Your task to perform on an android device: turn off picture-in-picture Image 0: 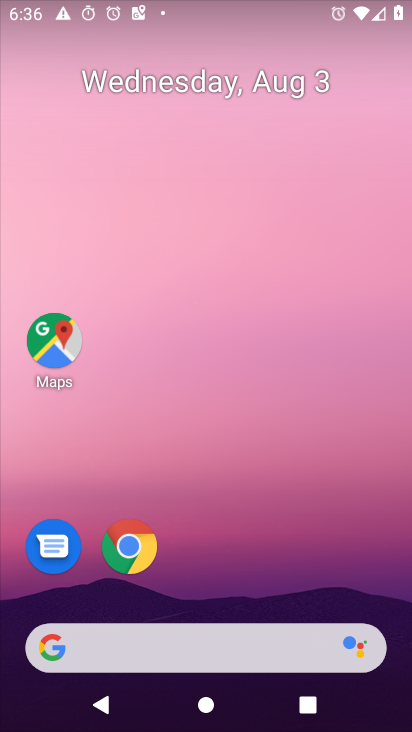
Step 0: press home button
Your task to perform on an android device: turn off picture-in-picture Image 1: 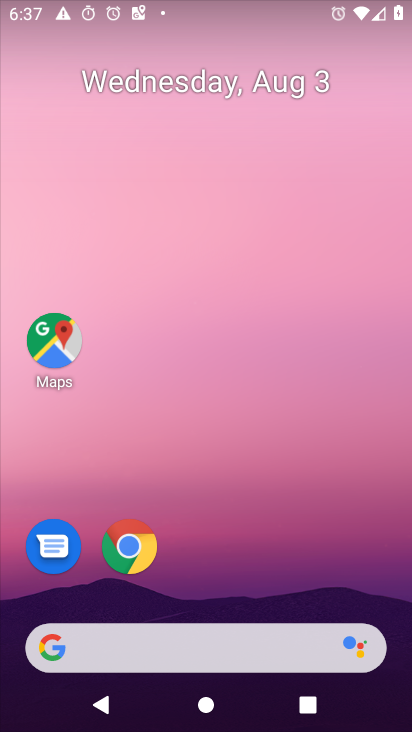
Step 1: click (128, 537)
Your task to perform on an android device: turn off picture-in-picture Image 2: 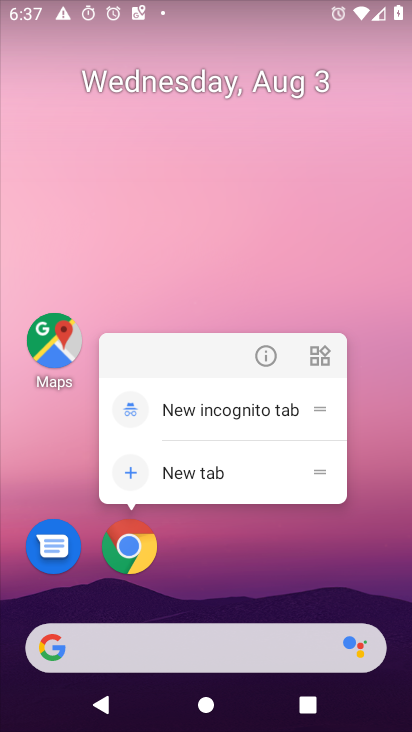
Step 2: click (262, 363)
Your task to perform on an android device: turn off picture-in-picture Image 3: 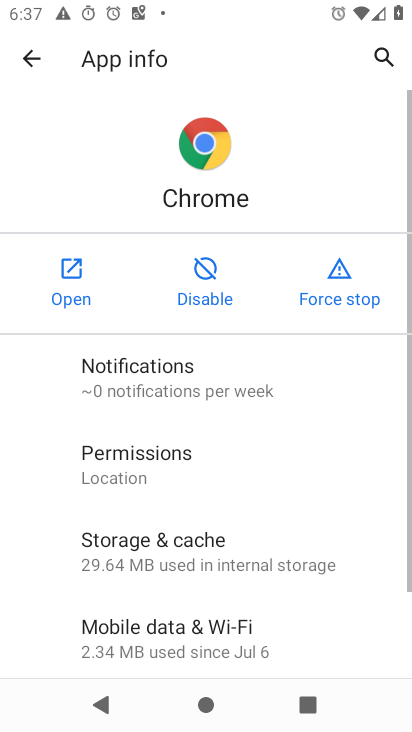
Step 3: drag from (356, 618) to (298, 65)
Your task to perform on an android device: turn off picture-in-picture Image 4: 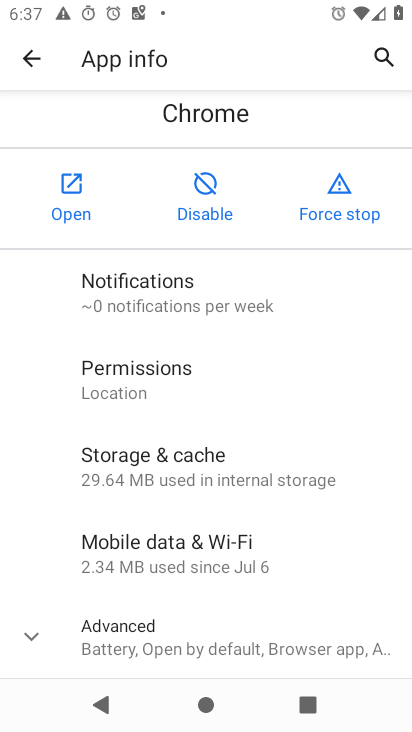
Step 4: click (131, 646)
Your task to perform on an android device: turn off picture-in-picture Image 5: 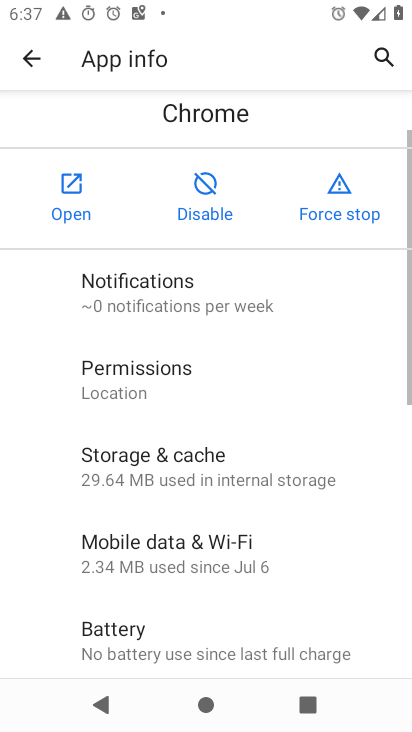
Step 5: drag from (339, 601) to (283, 14)
Your task to perform on an android device: turn off picture-in-picture Image 6: 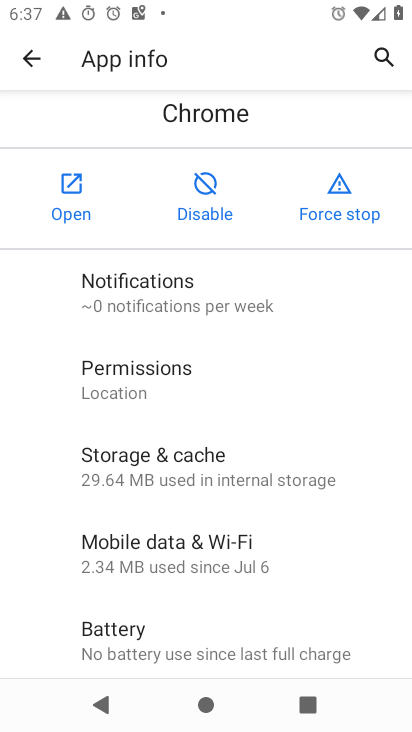
Step 6: drag from (346, 636) to (195, 39)
Your task to perform on an android device: turn off picture-in-picture Image 7: 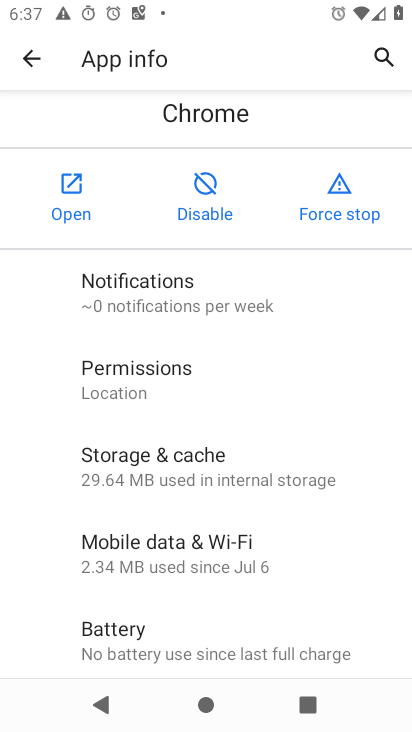
Step 7: drag from (80, 590) to (172, 5)
Your task to perform on an android device: turn off picture-in-picture Image 8: 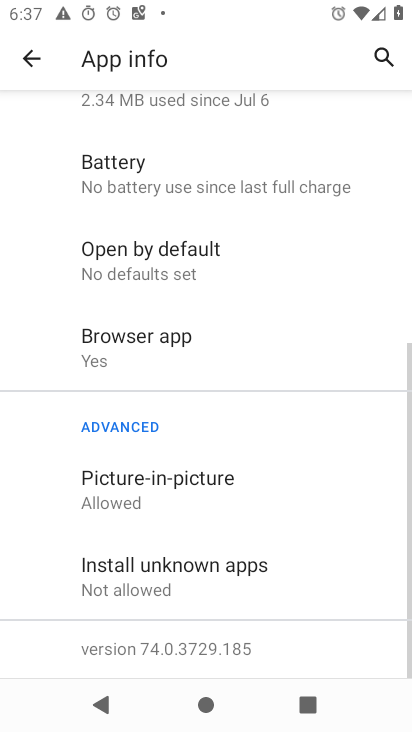
Step 8: drag from (339, 589) to (345, 1)
Your task to perform on an android device: turn off picture-in-picture Image 9: 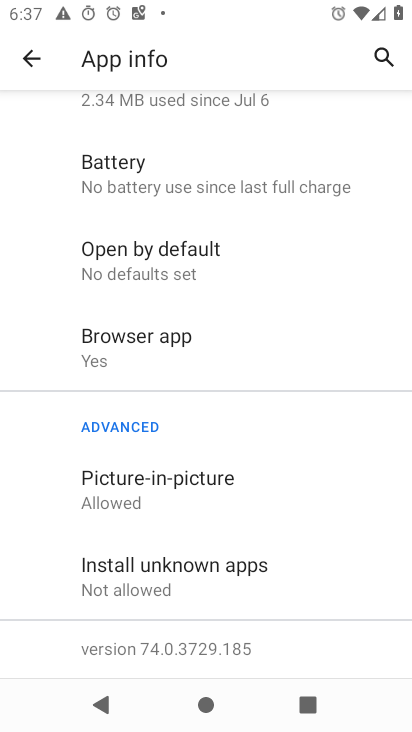
Step 9: click (131, 484)
Your task to perform on an android device: turn off picture-in-picture Image 10: 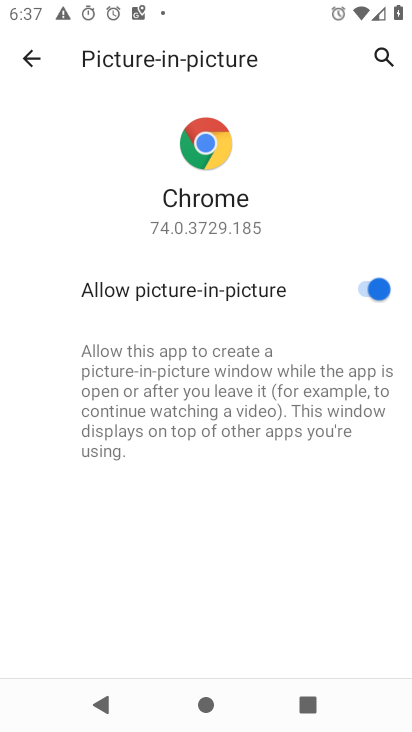
Step 10: click (379, 292)
Your task to perform on an android device: turn off picture-in-picture Image 11: 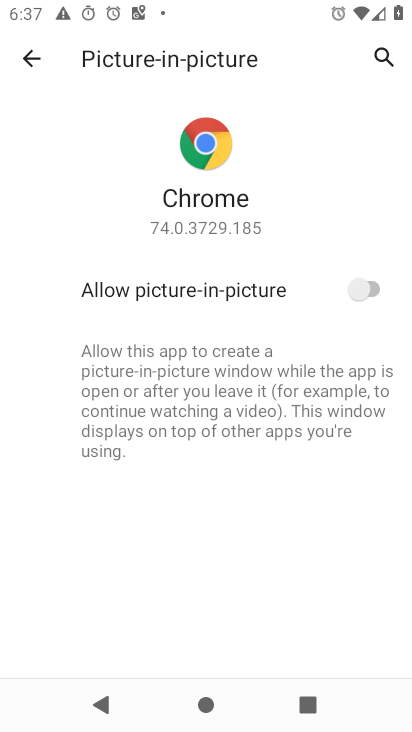
Step 11: task complete